Your task to perform on an android device: install app "Move to iOS" Image 0: 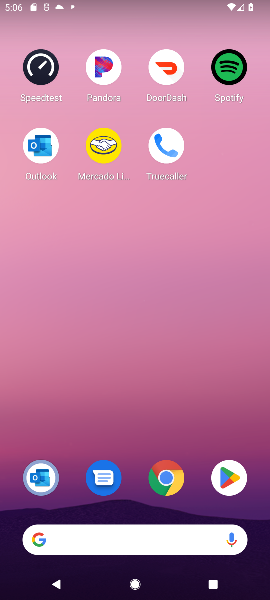
Step 0: press home button
Your task to perform on an android device: install app "Move to iOS" Image 1: 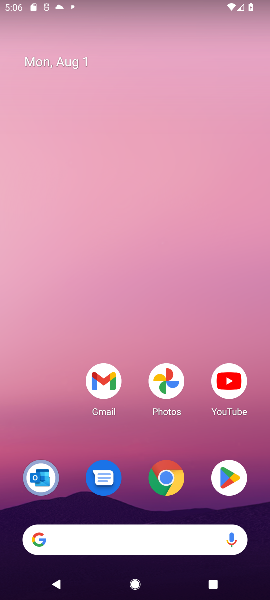
Step 1: click (235, 472)
Your task to perform on an android device: install app "Move to iOS" Image 2: 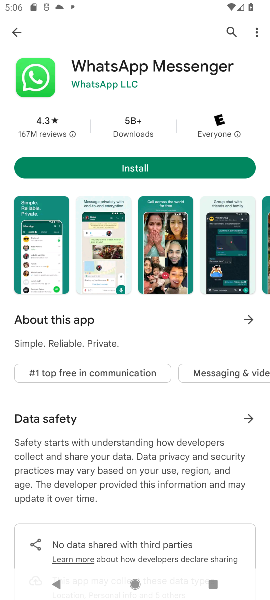
Step 2: click (229, 28)
Your task to perform on an android device: install app "Move to iOS" Image 3: 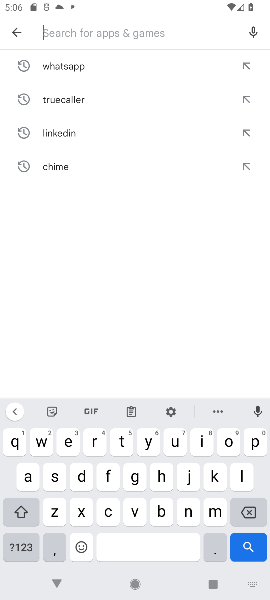
Step 3: type "move to ios"
Your task to perform on an android device: install app "Move to iOS" Image 4: 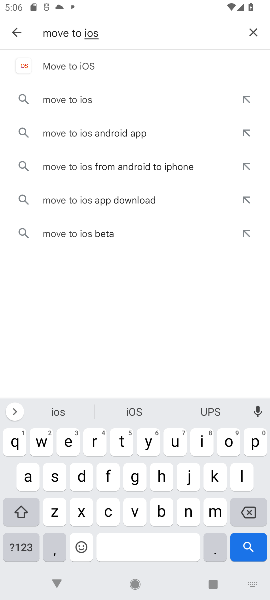
Step 4: click (146, 70)
Your task to perform on an android device: install app "Move to iOS" Image 5: 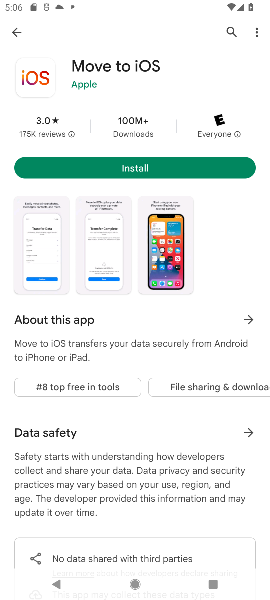
Step 5: click (171, 168)
Your task to perform on an android device: install app "Move to iOS" Image 6: 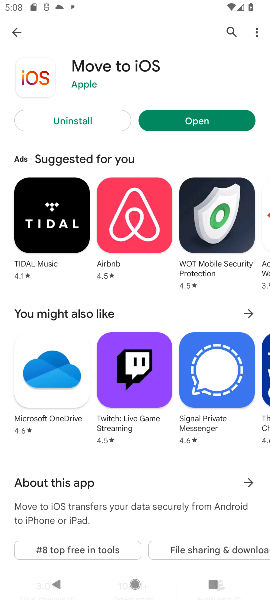
Step 6: task complete